Your task to perform on an android device: Open the stopwatch Image 0: 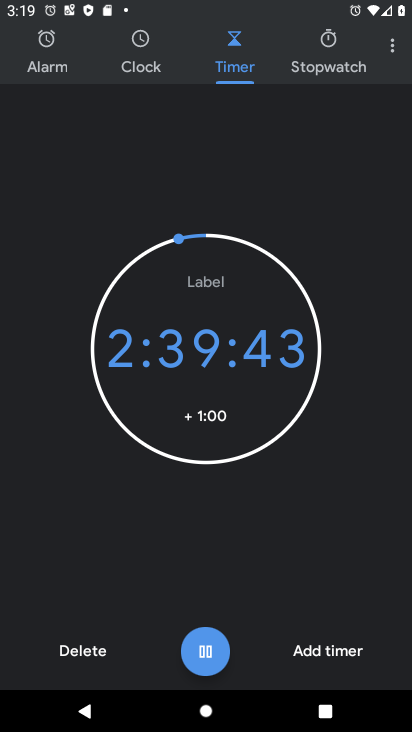
Step 0: click (334, 38)
Your task to perform on an android device: Open the stopwatch Image 1: 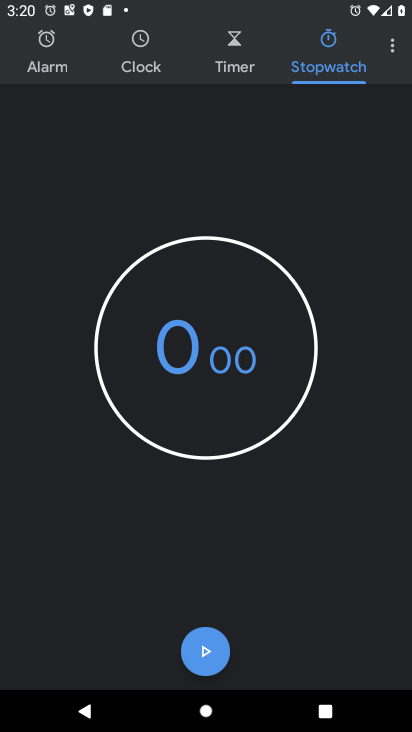
Step 1: task complete